Your task to perform on an android device: Go to accessibility settings Image 0: 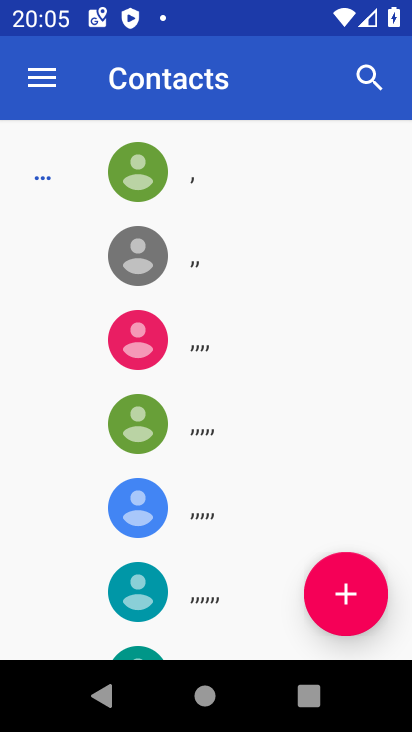
Step 0: press home button
Your task to perform on an android device: Go to accessibility settings Image 1: 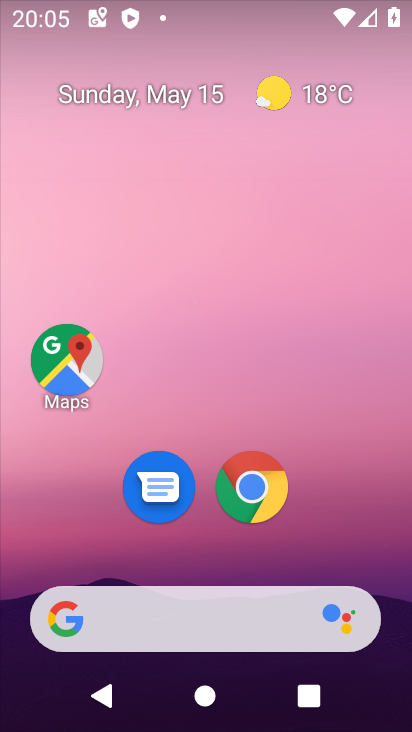
Step 1: drag from (393, 650) to (371, 302)
Your task to perform on an android device: Go to accessibility settings Image 2: 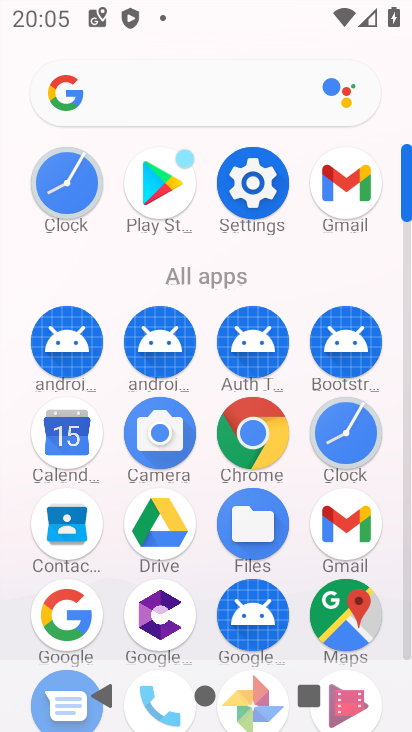
Step 2: click (253, 185)
Your task to perform on an android device: Go to accessibility settings Image 3: 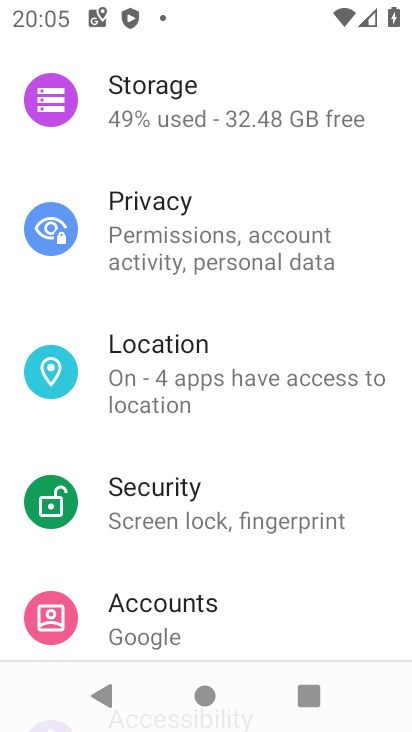
Step 3: drag from (309, 630) to (314, 374)
Your task to perform on an android device: Go to accessibility settings Image 4: 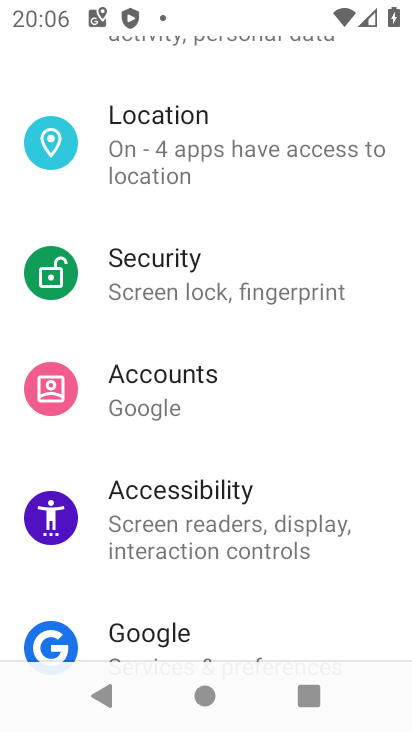
Step 4: click (147, 511)
Your task to perform on an android device: Go to accessibility settings Image 5: 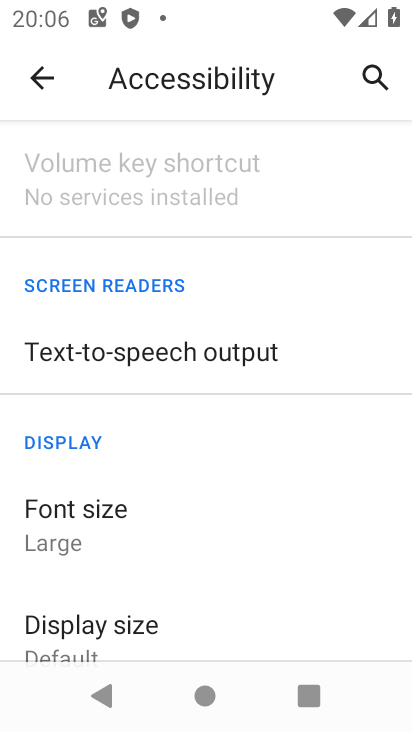
Step 5: task complete